Your task to perform on an android device: What's the weather today? Image 0: 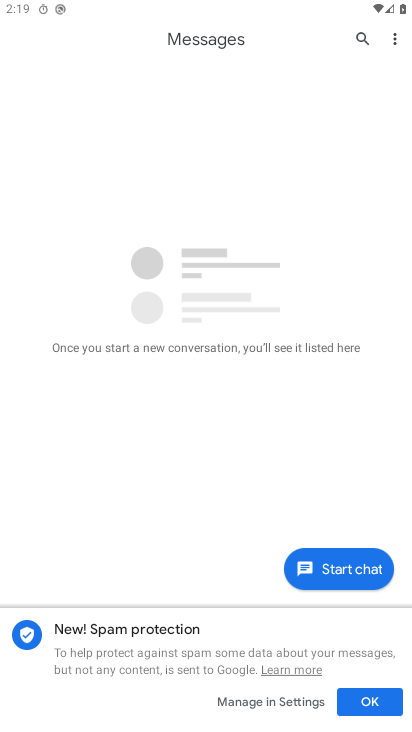
Step 0: press home button
Your task to perform on an android device: What's the weather today? Image 1: 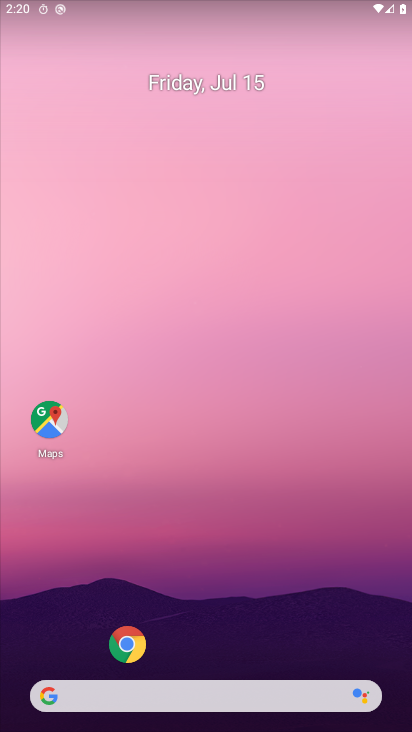
Step 1: click (113, 682)
Your task to perform on an android device: What's the weather today? Image 2: 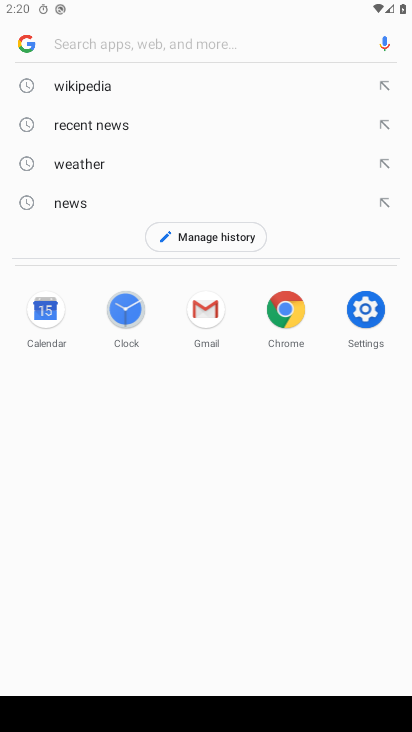
Step 2: type "What's the weather today?"
Your task to perform on an android device: What's the weather today? Image 3: 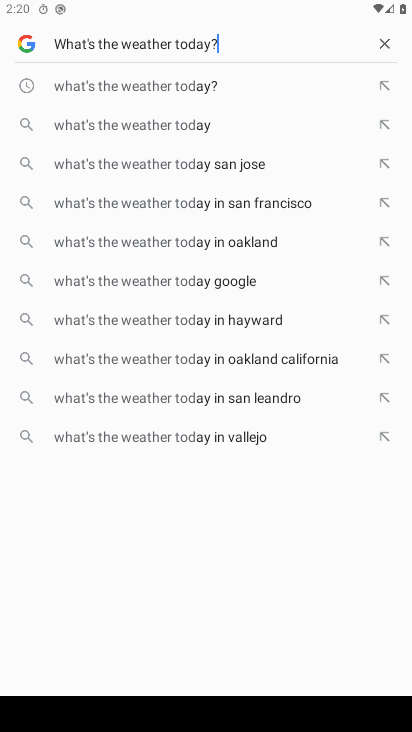
Step 3: type ""
Your task to perform on an android device: What's the weather today? Image 4: 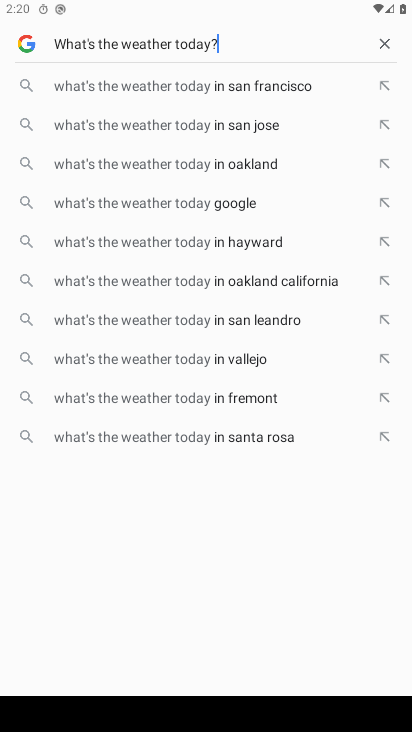
Step 4: type ""
Your task to perform on an android device: What's the weather today? Image 5: 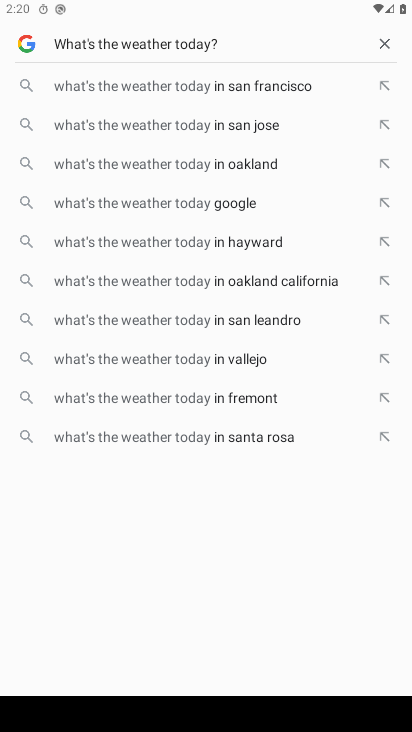
Step 5: type ""
Your task to perform on an android device: What's the weather today? Image 6: 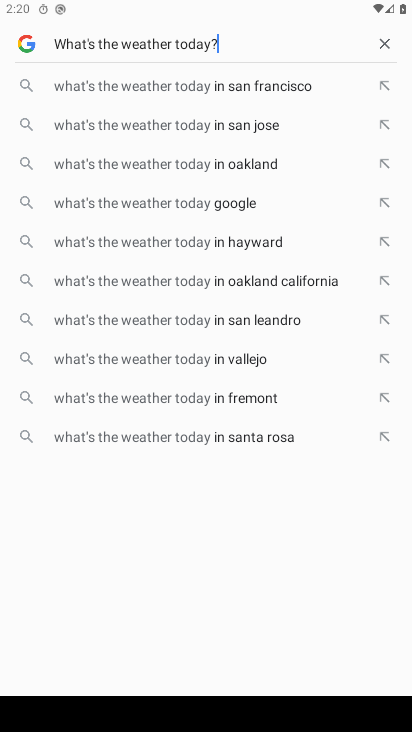
Step 6: task complete